Your task to perform on an android device: See recent photos Image 0: 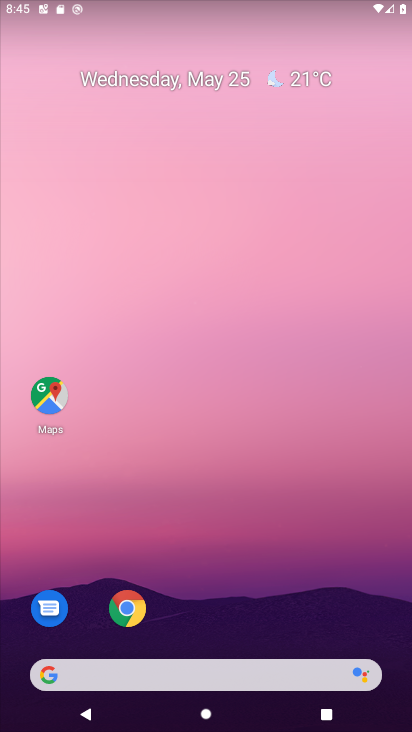
Step 0: drag from (246, 722) to (210, 165)
Your task to perform on an android device: See recent photos Image 1: 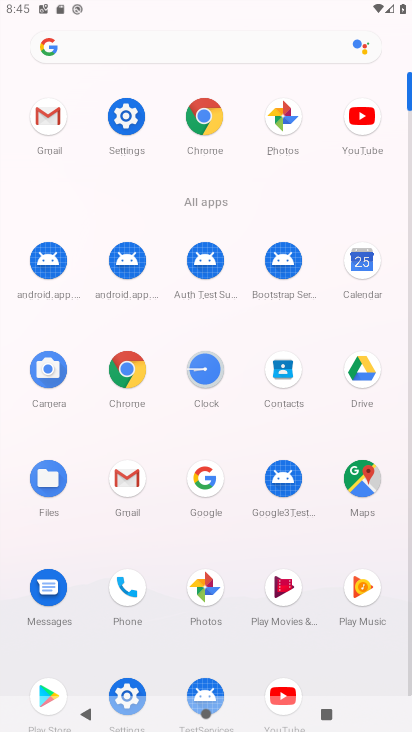
Step 1: click (212, 582)
Your task to perform on an android device: See recent photos Image 2: 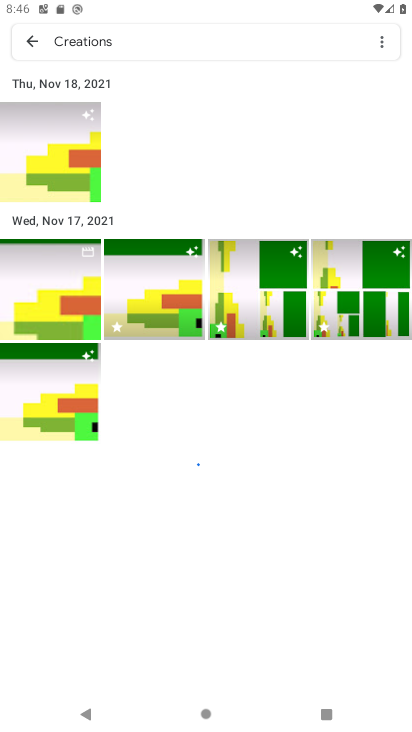
Step 2: click (55, 299)
Your task to perform on an android device: See recent photos Image 3: 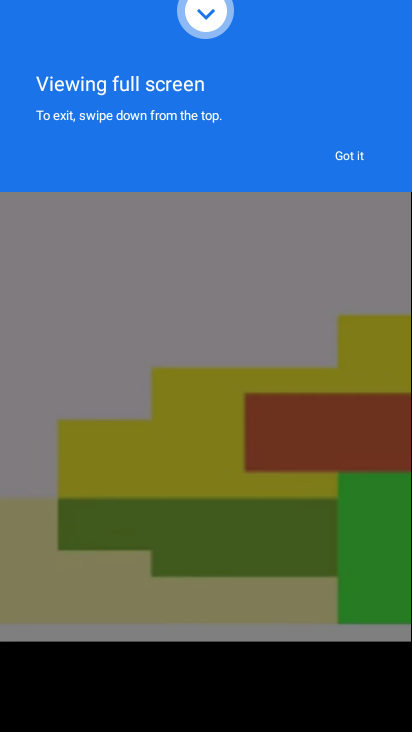
Step 3: task complete